Your task to perform on an android device: open the mobile data screen to see how much data has been used Image 0: 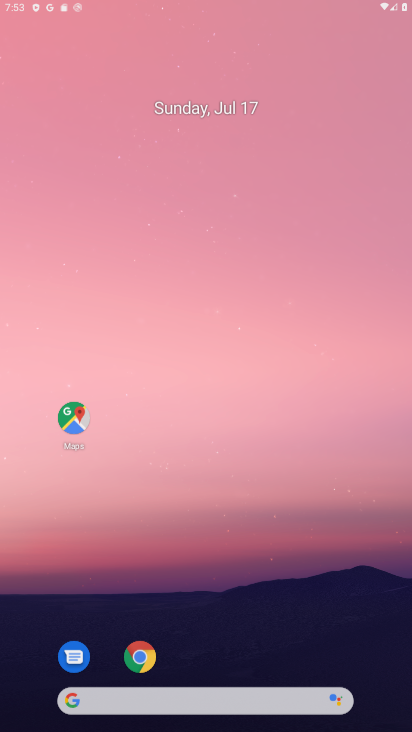
Step 0: press back button
Your task to perform on an android device: open the mobile data screen to see how much data has been used Image 1: 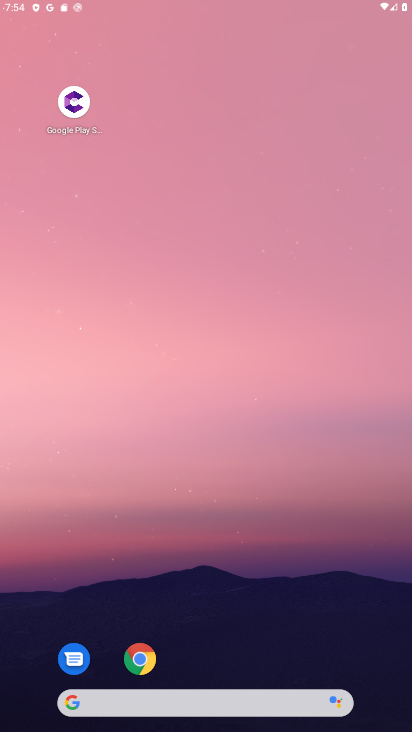
Step 1: drag from (258, 642) to (218, 155)
Your task to perform on an android device: open the mobile data screen to see how much data has been used Image 2: 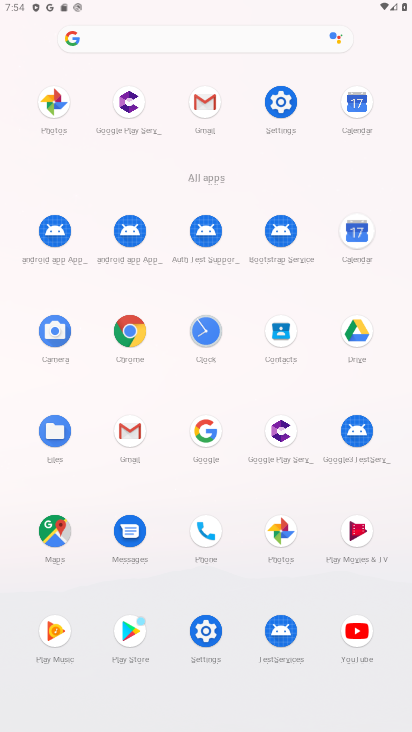
Step 2: click (275, 108)
Your task to perform on an android device: open the mobile data screen to see how much data has been used Image 3: 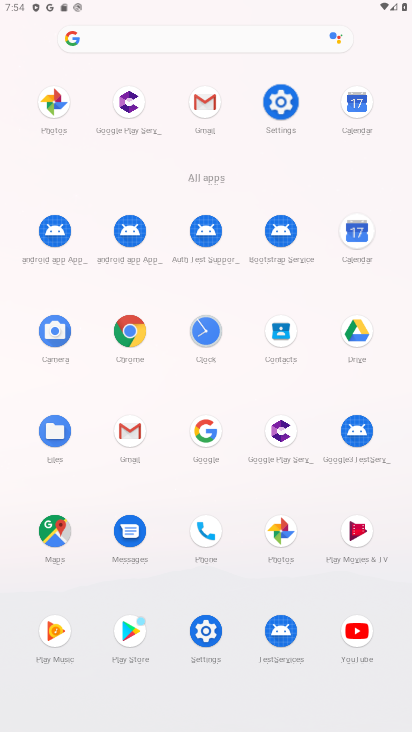
Step 3: click (275, 108)
Your task to perform on an android device: open the mobile data screen to see how much data has been used Image 4: 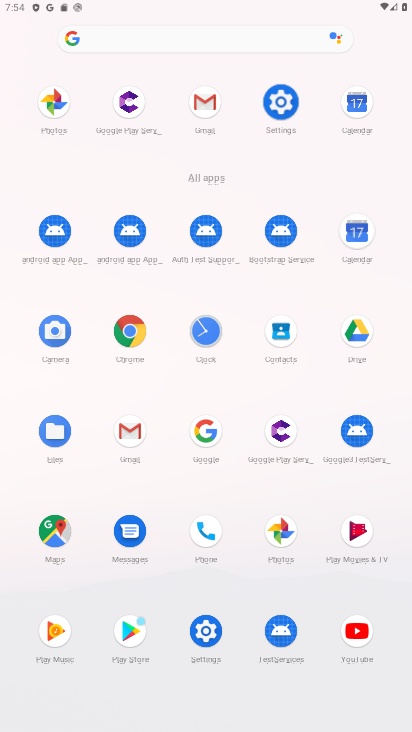
Step 4: click (275, 108)
Your task to perform on an android device: open the mobile data screen to see how much data has been used Image 5: 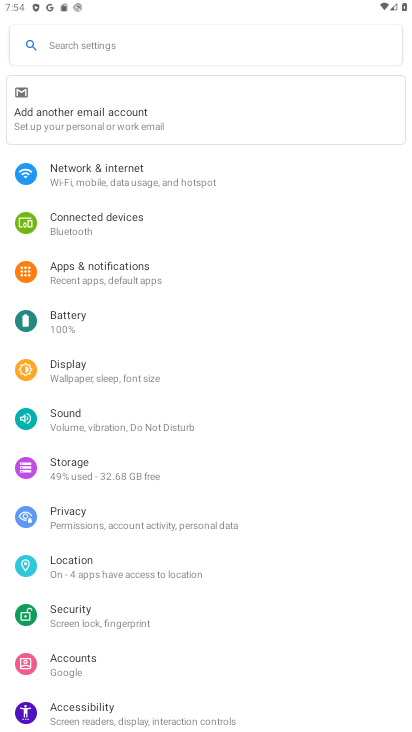
Step 5: click (93, 181)
Your task to perform on an android device: open the mobile data screen to see how much data has been used Image 6: 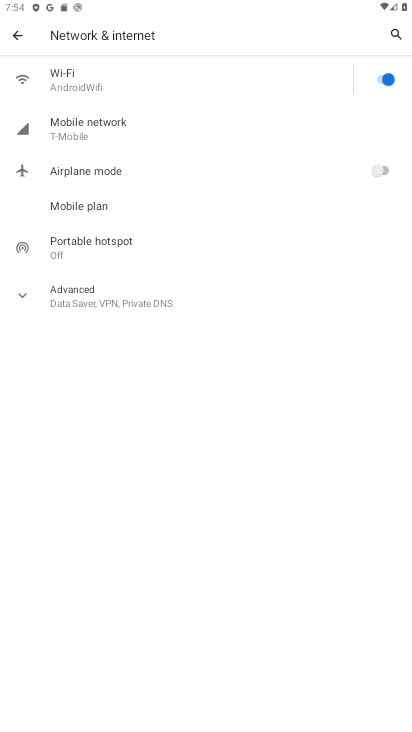
Step 6: click (73, 116)
Your task to perform on an android device: open the mobile data screen to see how much data has been used Image 7: 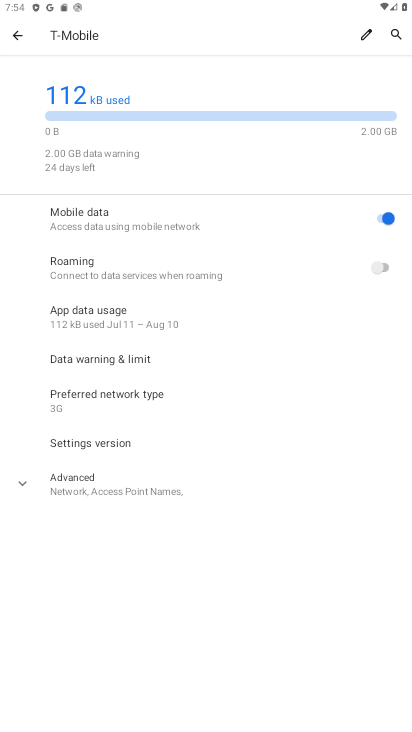
Step 7: click (78, 214)
Your task to perform on an android device: open the mobile data screen to see how much data has been used Image 8: 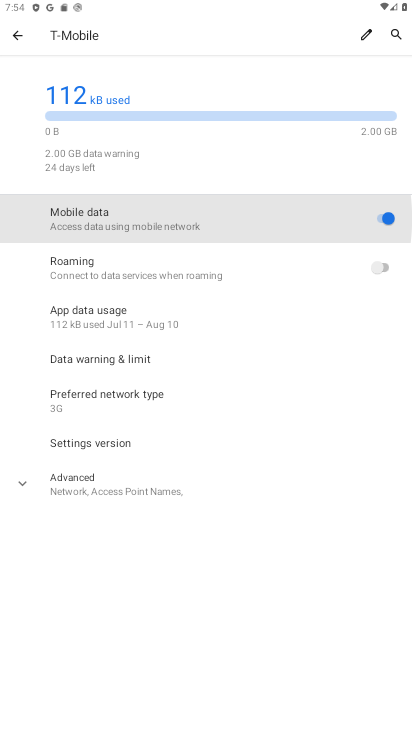
Step 8: click (80, 215)
Your task to perform on an android device: open the mobile data screen to see how much data has been used Image 9: 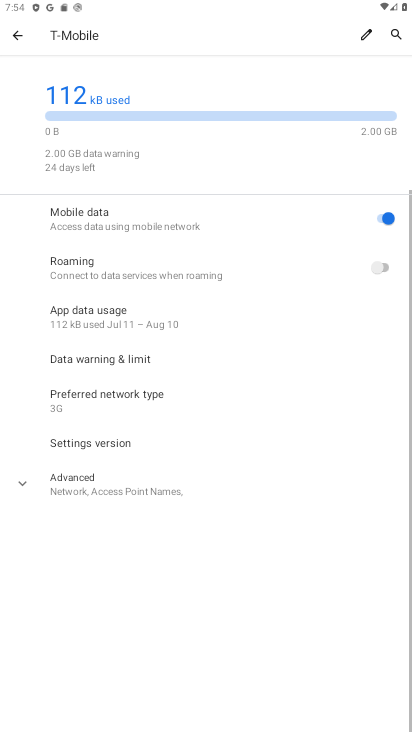
Step 9: click (82, 218)
Your task to perform on an android device: open the mobile data screen to see how much data has been used Image 10: 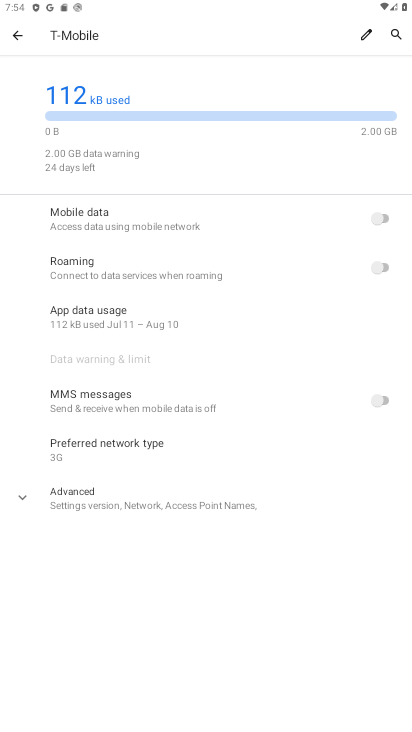
Step 10: click (92, 227)
Your task to perform on an android device: open the mobile data screen to see how much data has been used Image 11: 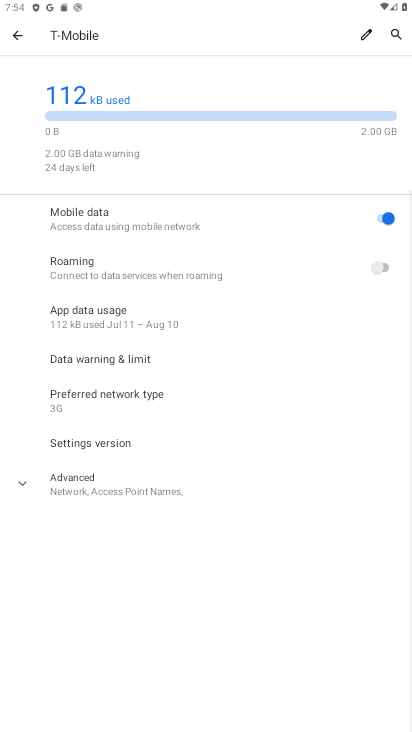
Step 11: task complete